Your task to perform on an android device: Show the shopping cart on walmart.com. Add usb-c to usb-a to the cart on walmart.com Image 0: 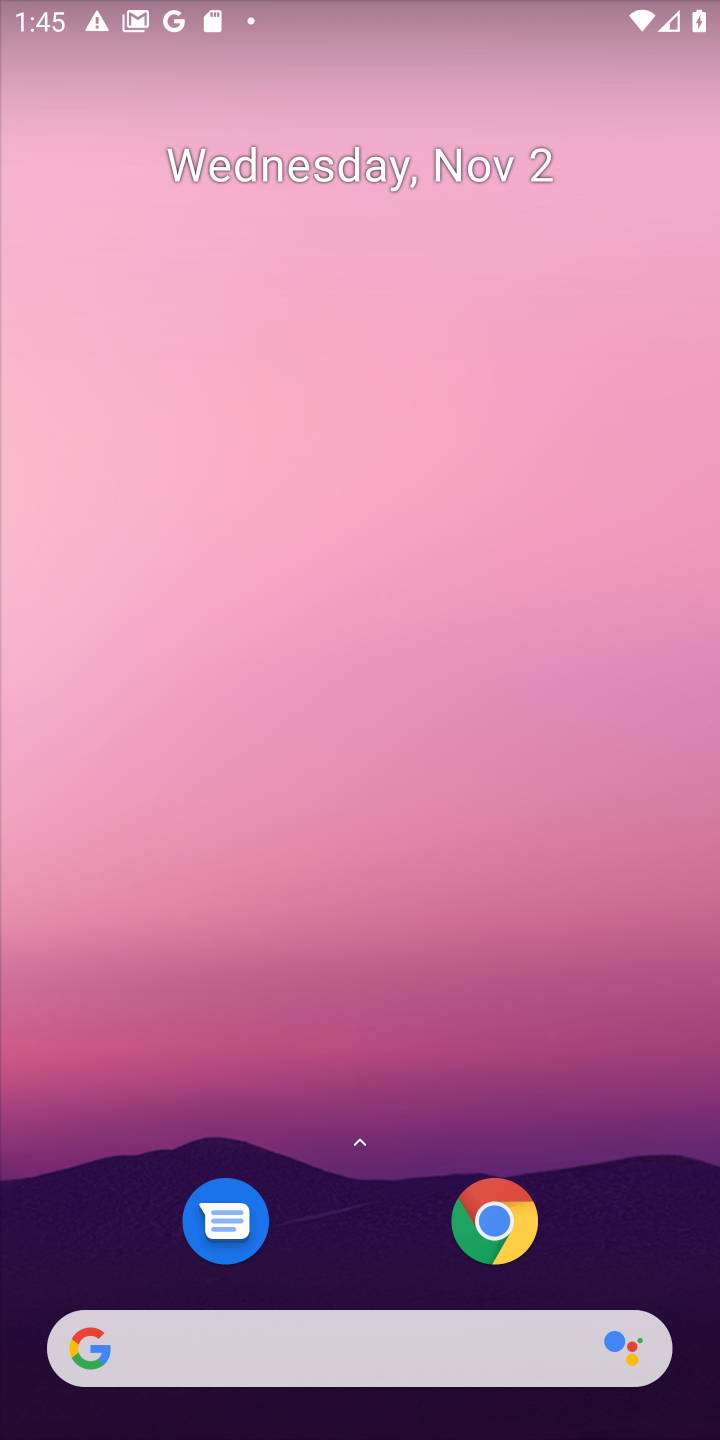
Step 0: click (375, 1383)
Your task to perform on an android device: Show the shopping cart on walmart.com. Add usb-c to usb-a to the cart on walmart.com Image 1: 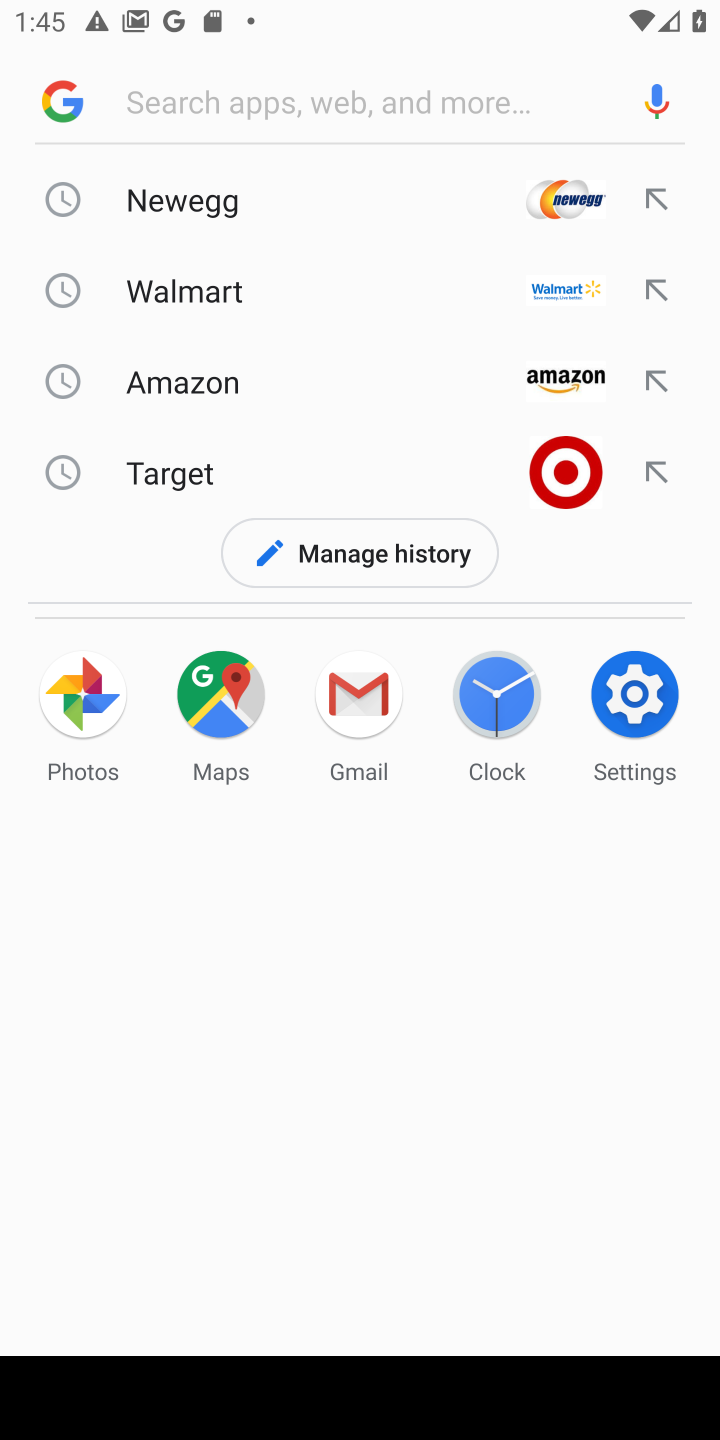
Step 1: click (351, 281)
Your task to perform on an android device: Show the shopping cart on walmart.com. Add usb-c to usb-a to the cart on walmart.com Image 2: 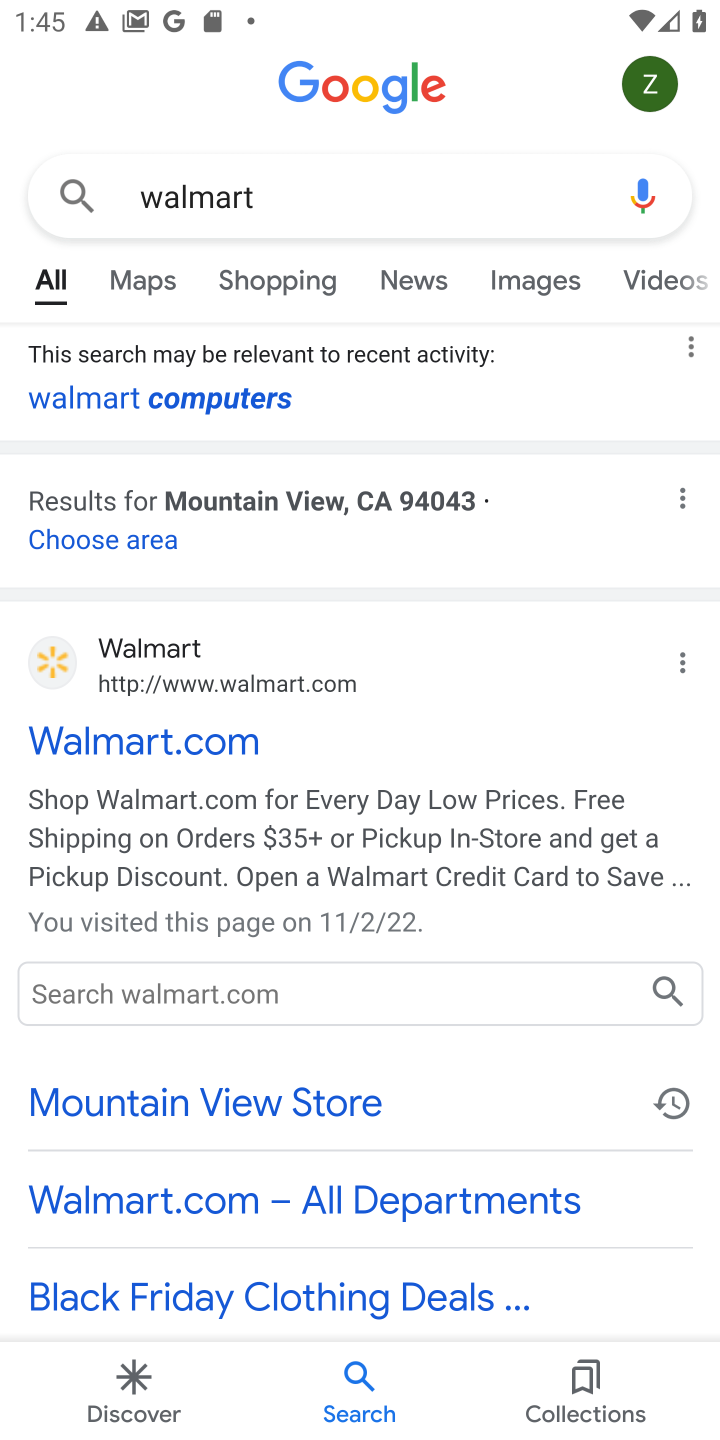
Step 2: click (213, 730)
Your task to perform on an android device: Show the shopping cart on walmart.com. Add usb-c to usb-a to the cart on walmart.com Image 3: 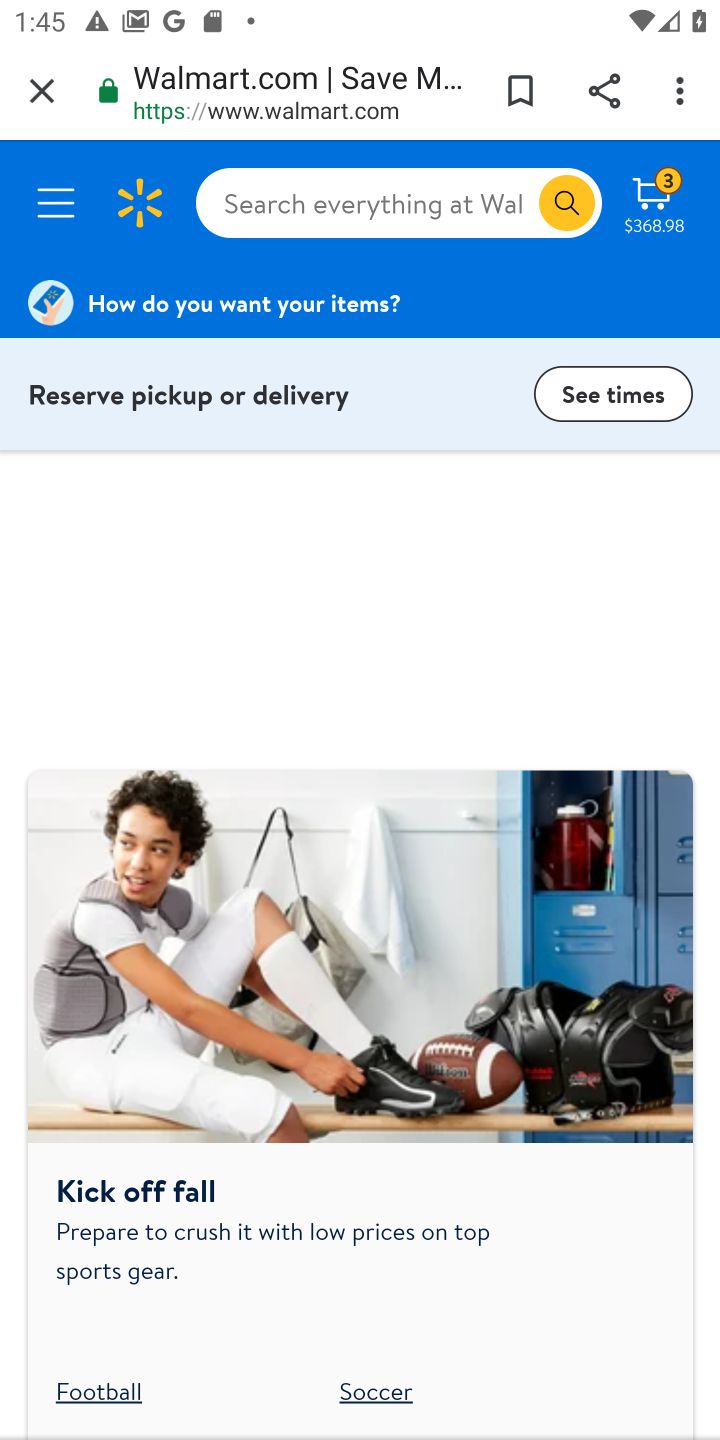
Step 3: click (311, 224)
Your task to perform on an android device: Show the shopping cart on walmart.com. Add usb-c to usb-a to the cart on walmart.com Image 4: 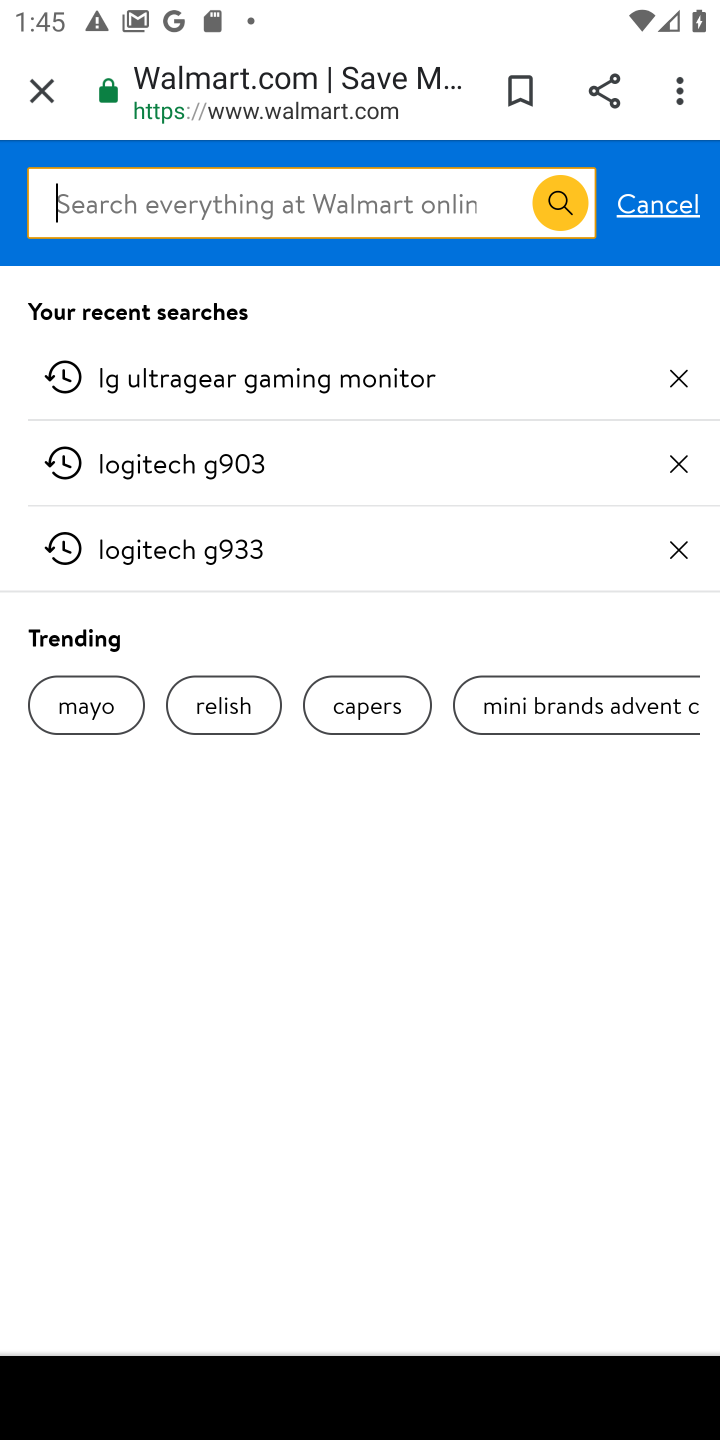
Step 4: type "usb-c to usb-a"
Your task to perform on an android device: Show the shopping cart on walmart.com. Add usb-c to usb-a to the cart on walmart.com Image 5: 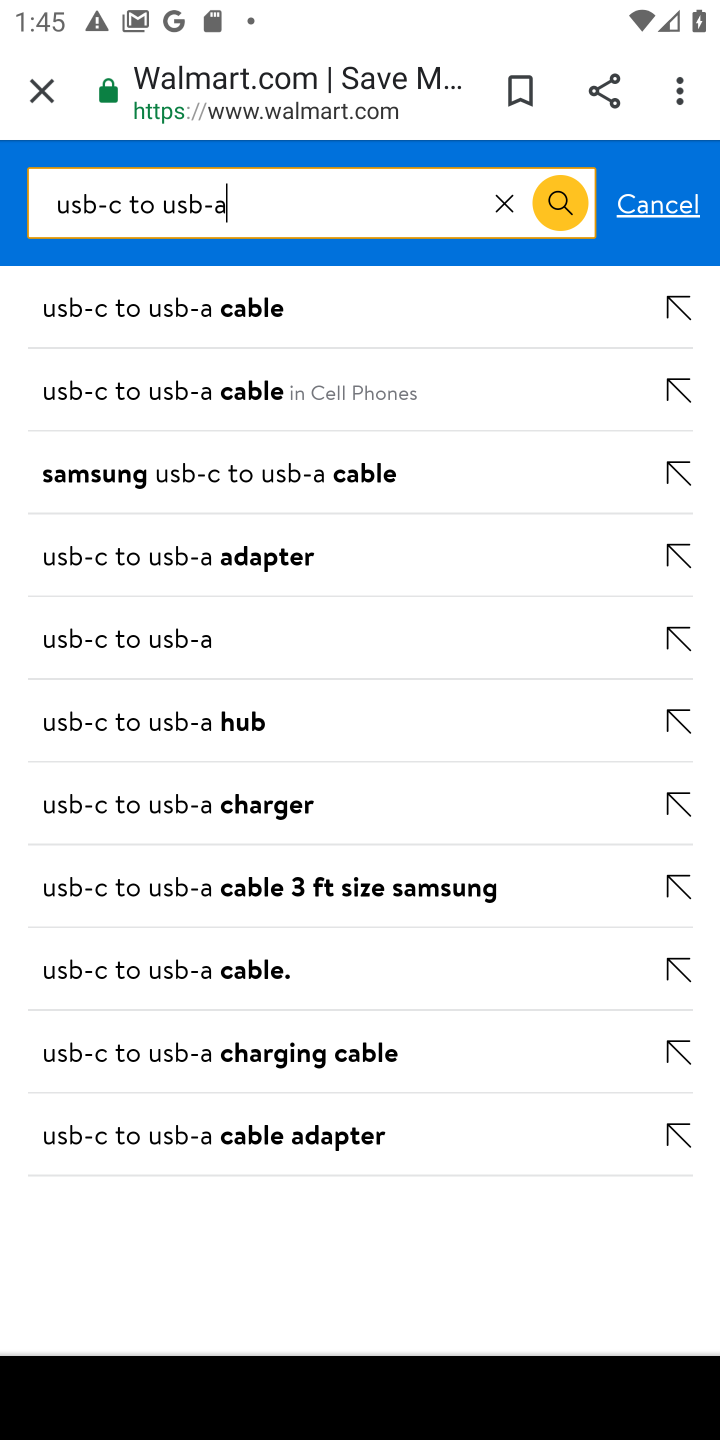
Step 5: click (288, 328)
Your task to perform on an android device: Show the shopping cart on walmart.com. Add usb-c to usb-a to the cart on walmart.com Image 6: 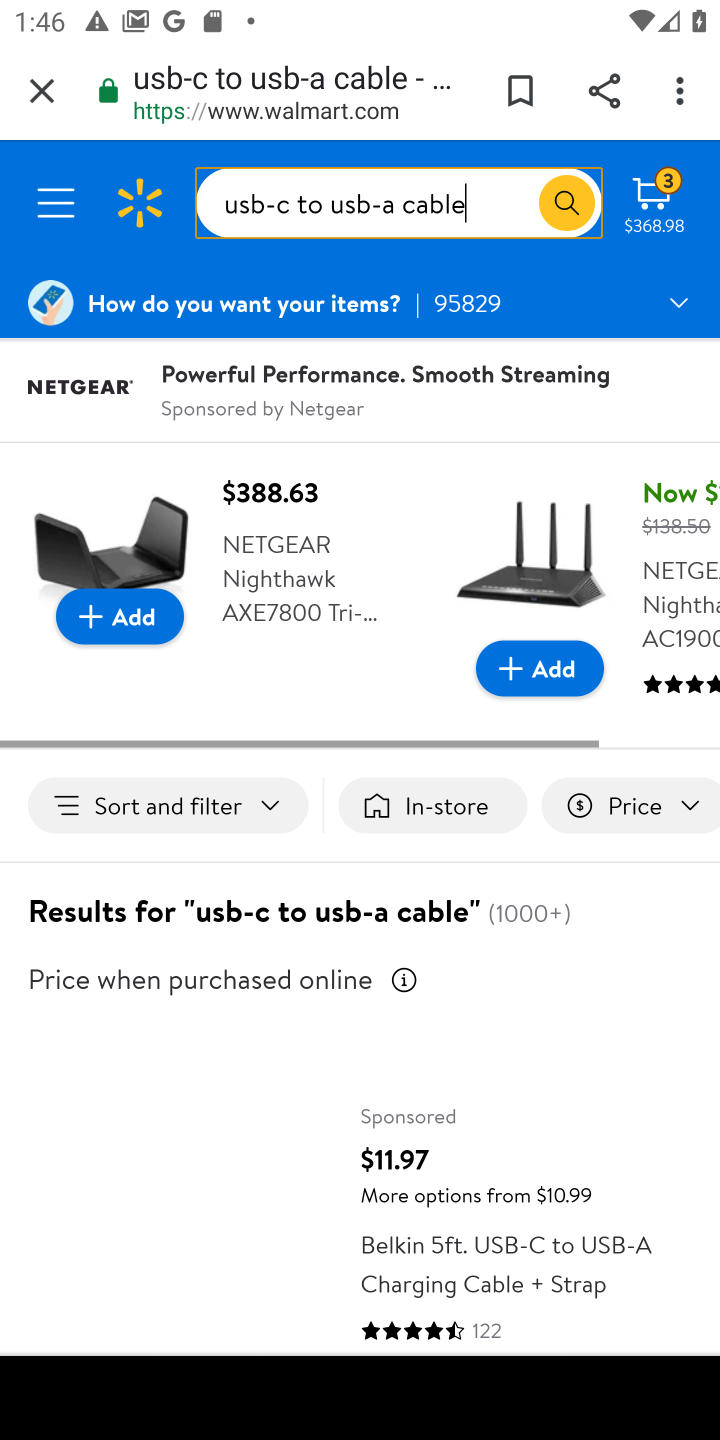
Step 6: drag from (562, 1083) to (531, 518)
Your task to perform on an android device: Show the shopping cart on walmart.com. Add usb-c to usb-a to the cart on walmart.com Image 7: 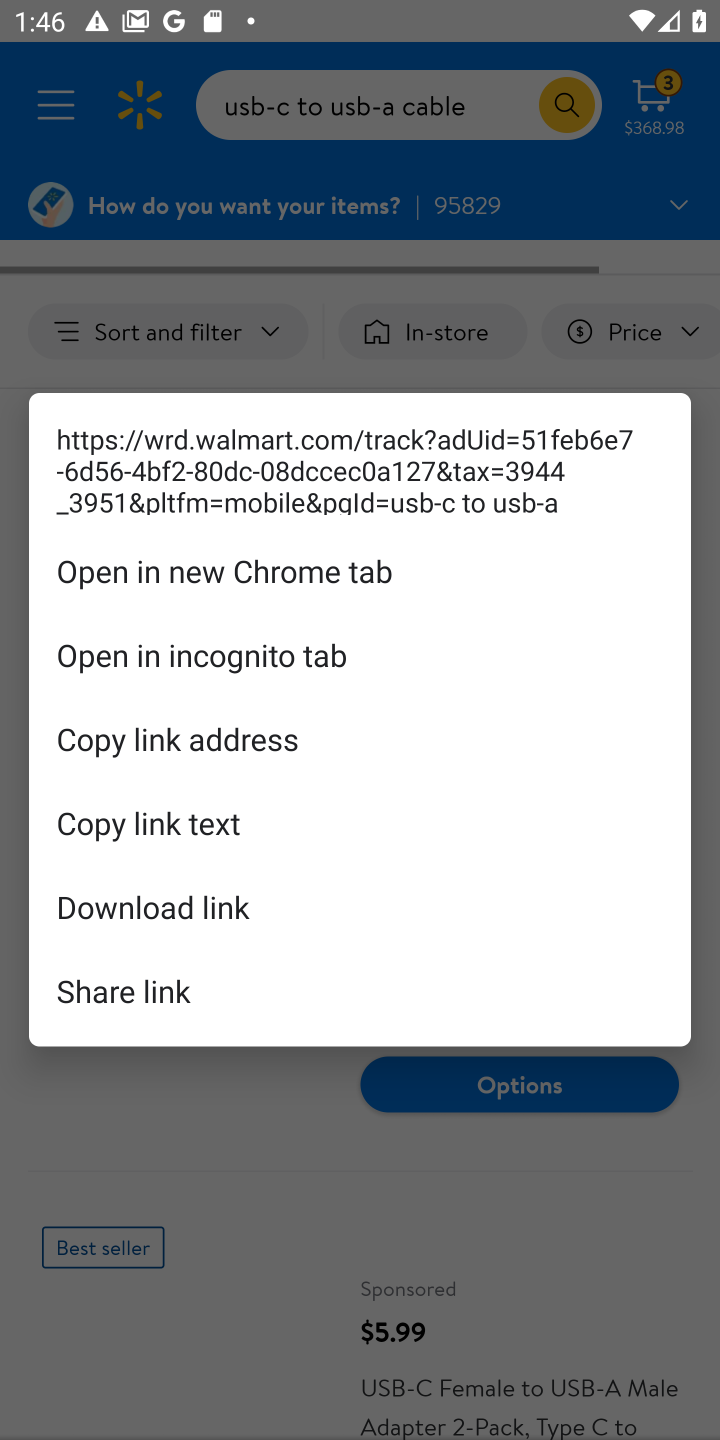
Step 7: click (513, 1192)
Your task to perform on an android device: Show the shopping cart on walmart.com. Add usb-c to usb-a to the cart on walmart.com Image 8: 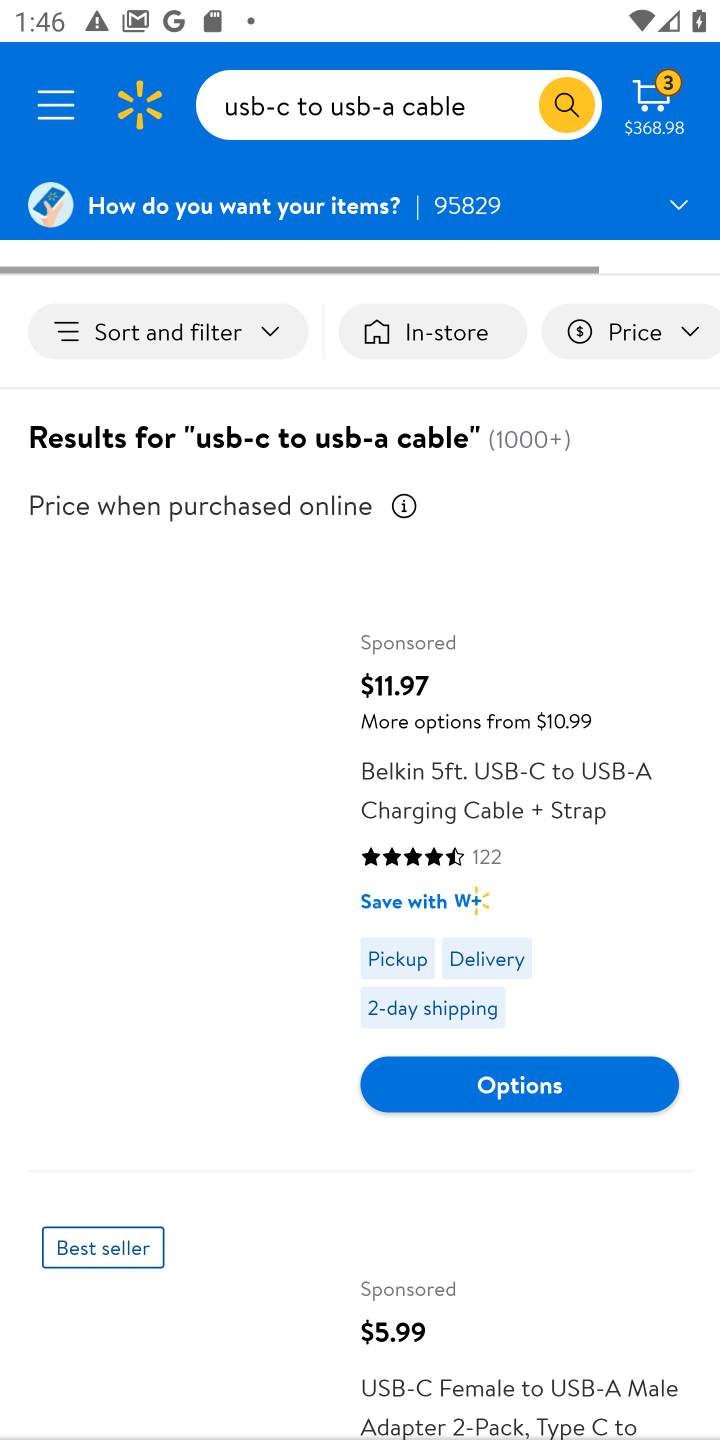
Step 8: click (513, 1105)
Your task to perform on an android device: Show the shopping cart on walmart.com. Add usb-c to usb-a to the cart on walmart.com Image 9: 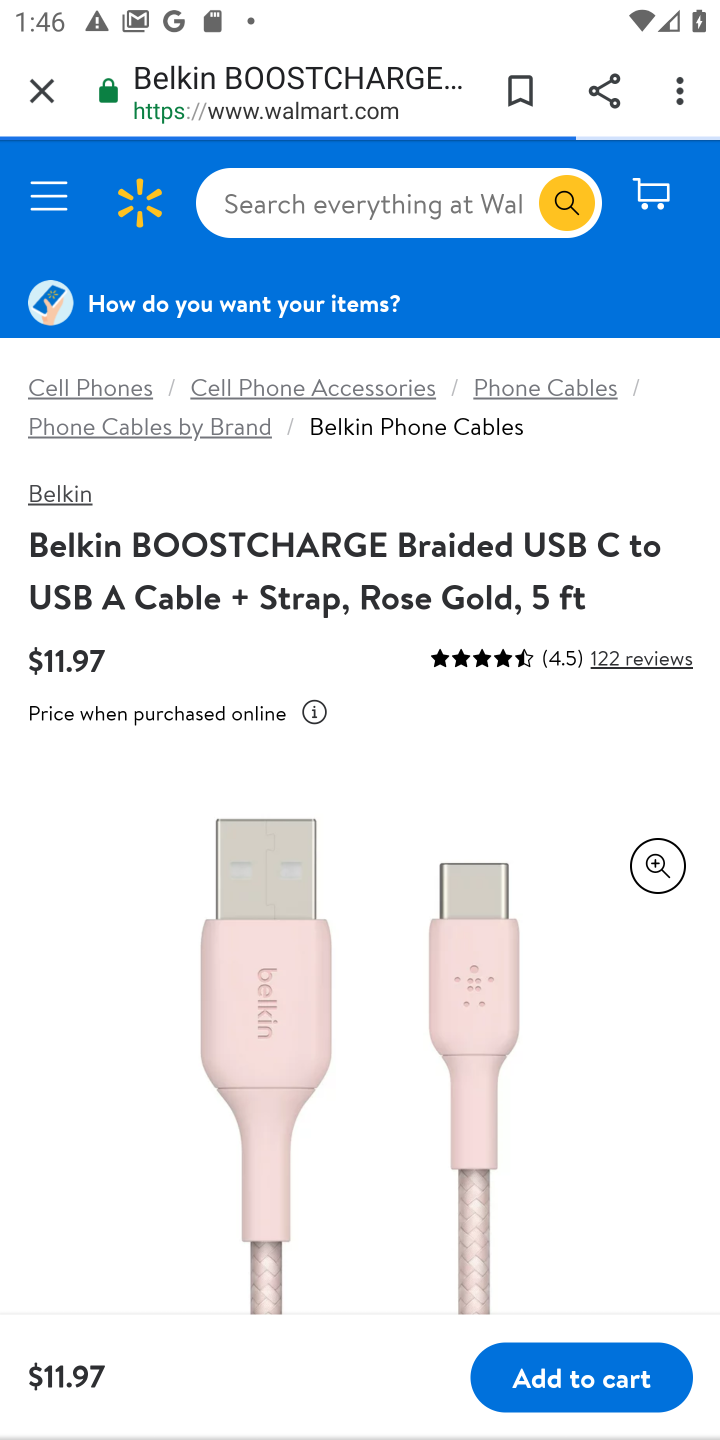
Step 9: click (553, 1374)
Your task to perform on an android device: Show the shopping cart on walmart.com. Add usb-c to usb-a to the cart on walmart.com Image 10: 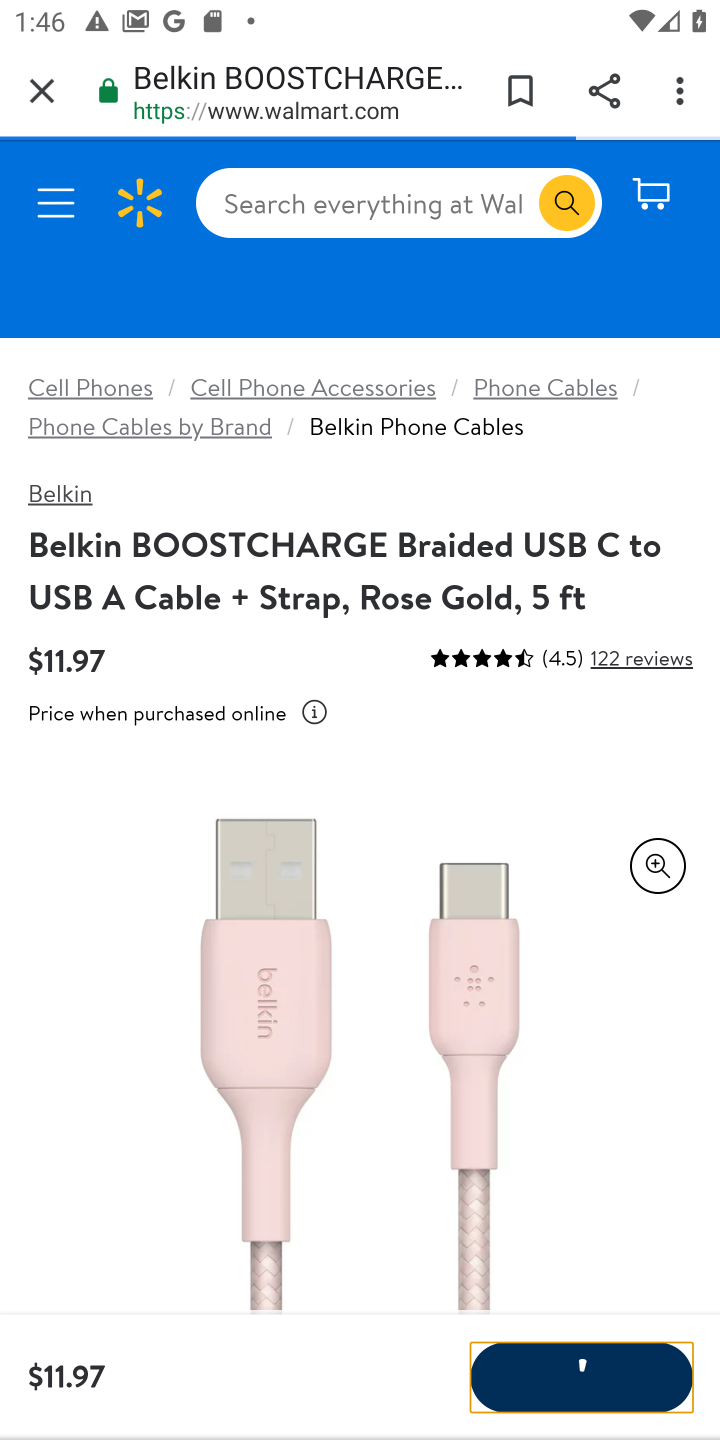
Step 10: task complete